Your task to perform on an android device: Go to Wikipedia Image 0: 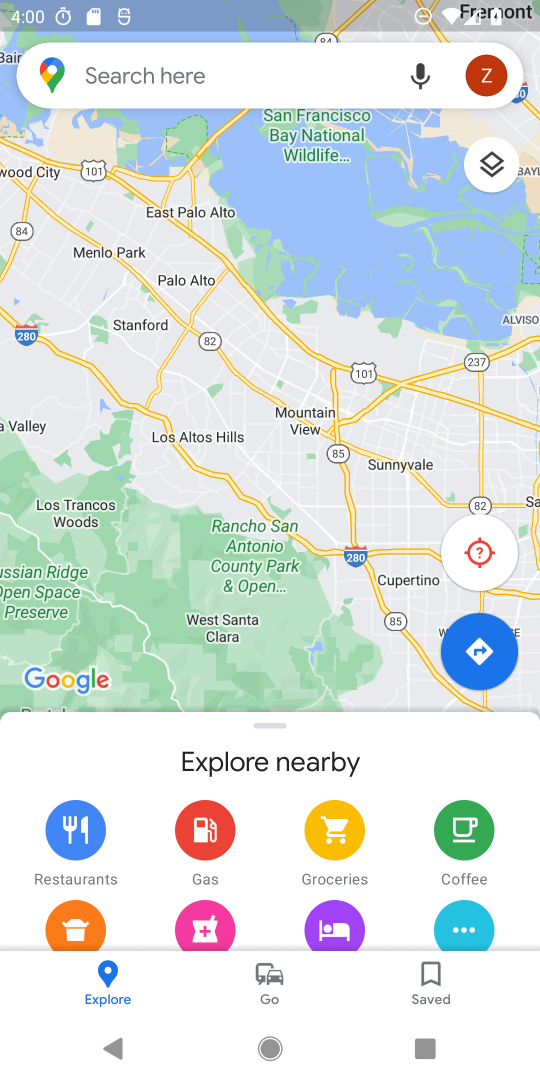
Step 0: press home button
Your task to perform on an android device: Go to Wikipedia Image 1: 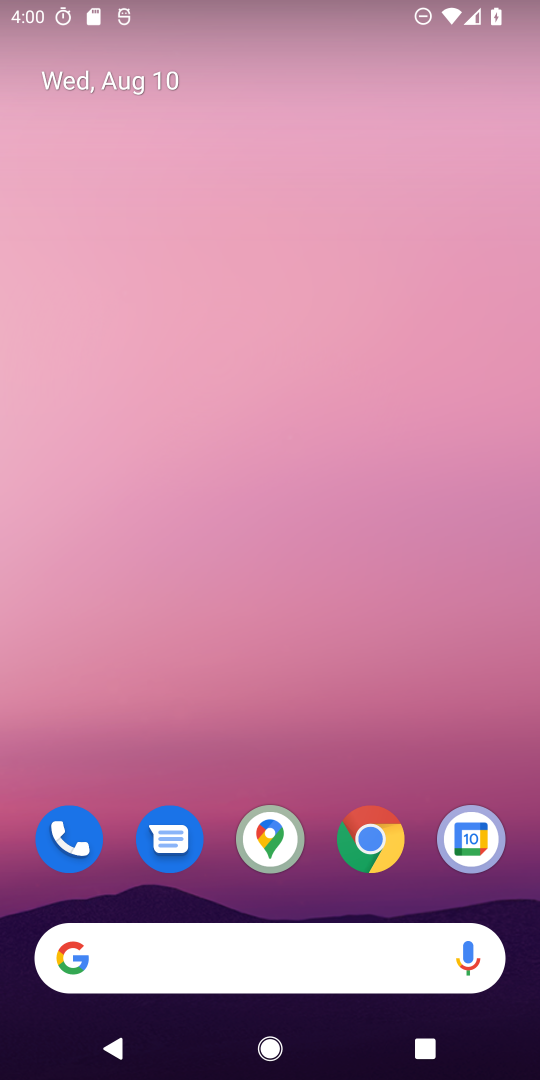
Step 1: click (113, 961)
Your task to perform on an android device: Go to Wikipedia Image 2: 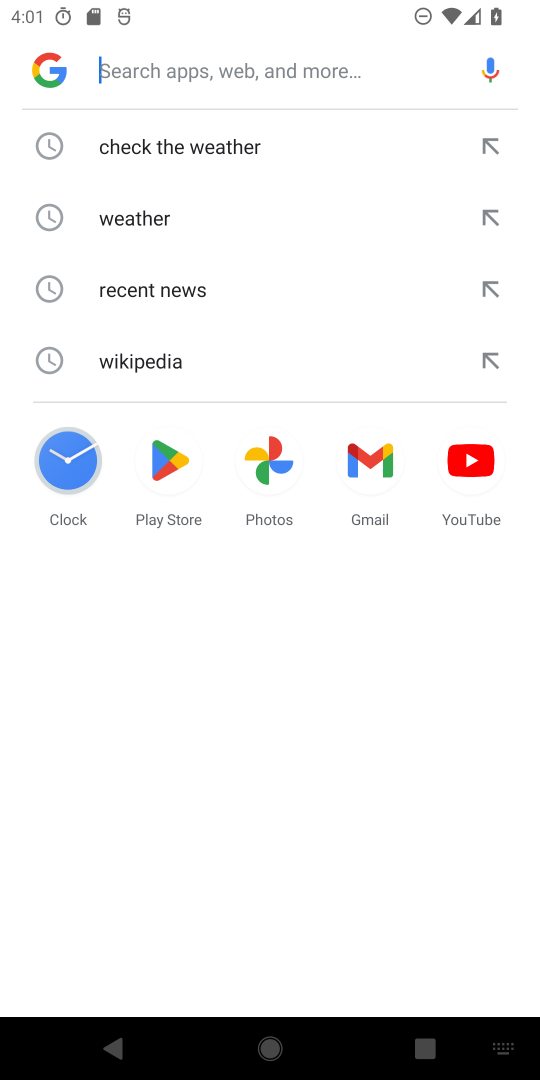
Step 2: type "Wikipedia"
Your task to perform on an android device: Go to Wikipedia Image 3: 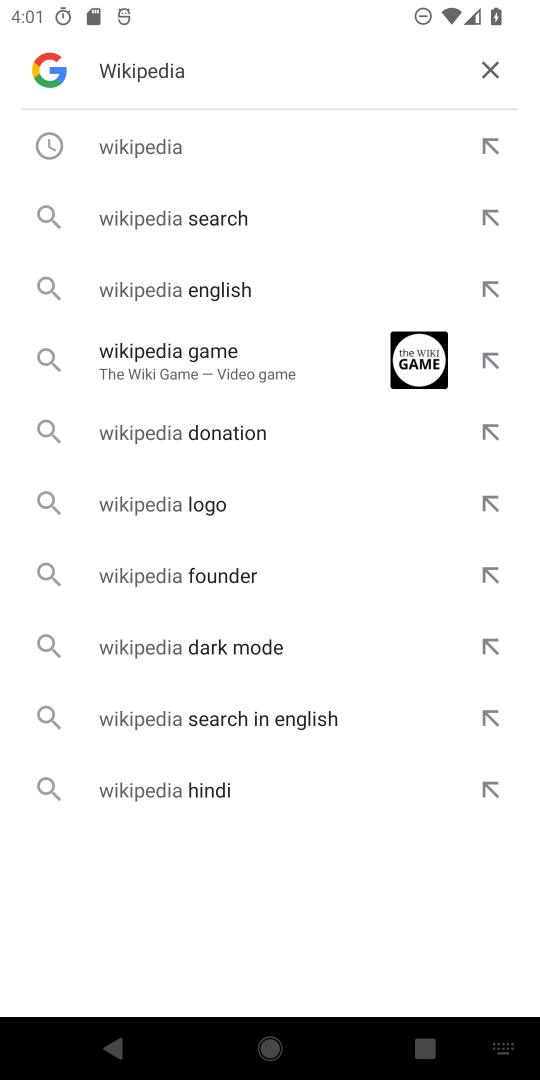
Step 3: click (149, 147)
Your task to perform on an android device: Go to Wikipedia Image 4: 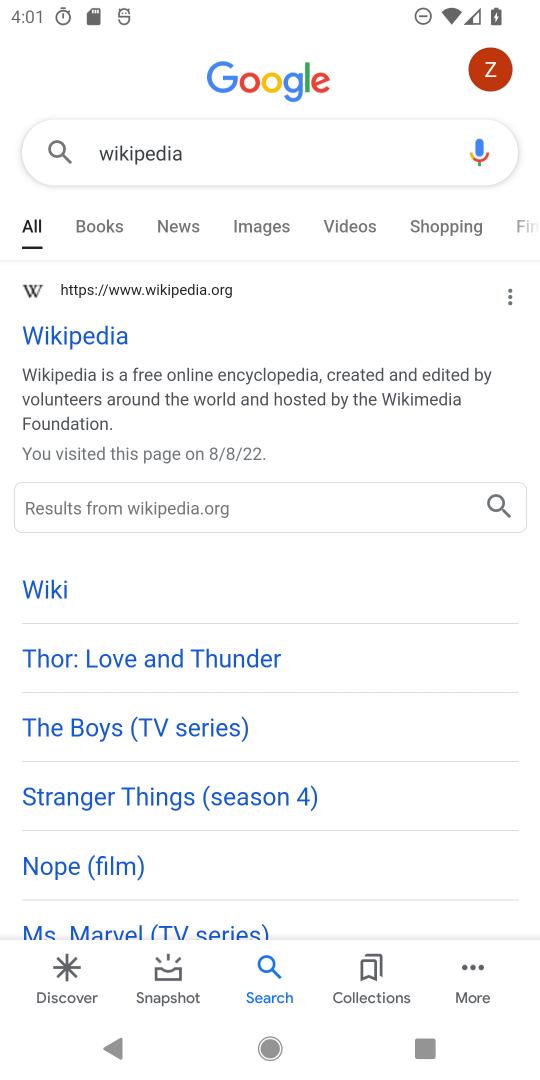
Step 4: task complete